Your task to perform on an android device: turn off wifi Image 0: 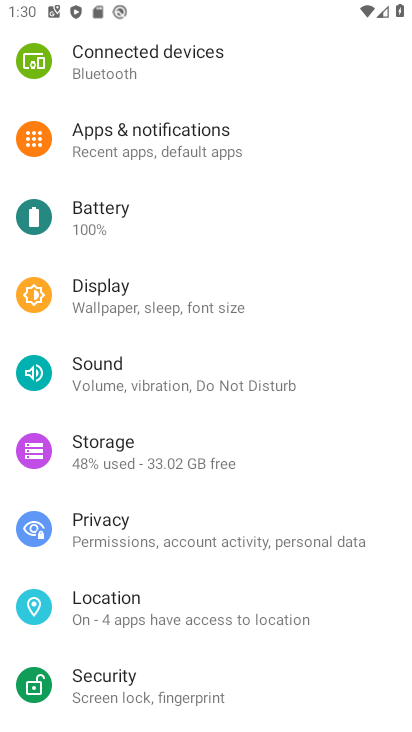
Step 0: press home button
Your task to perform on an android device: turn off wifi Image 1: 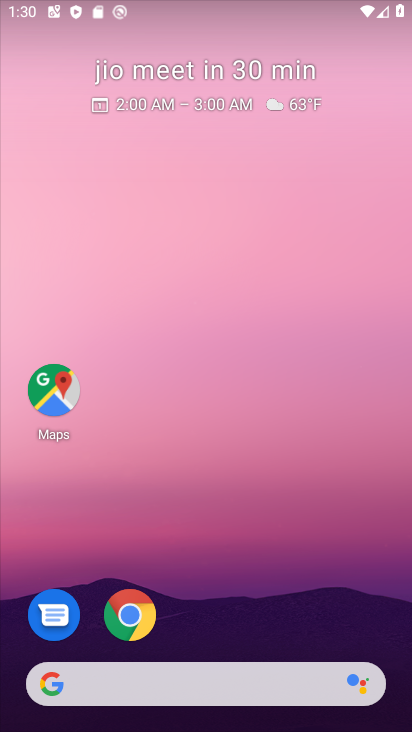
Step 1: drag from (192, 579) to (261, 88)
Your task to perform on an android device: turn off wifi Image 2: 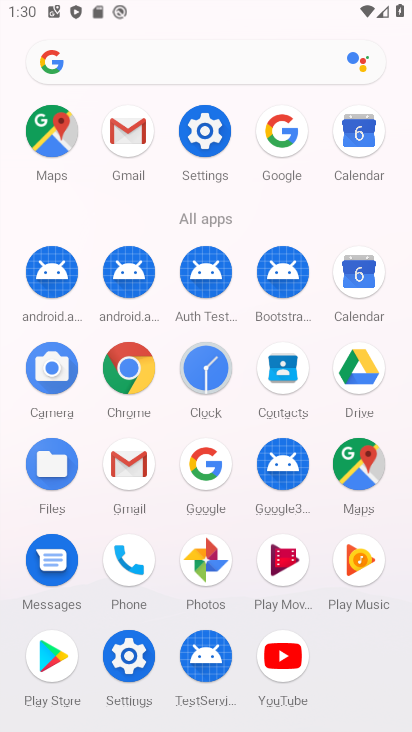
Step 2: drag from (159, 572) to (205, 366)
Your task to perform on an android device: turn off wifi Image 3: 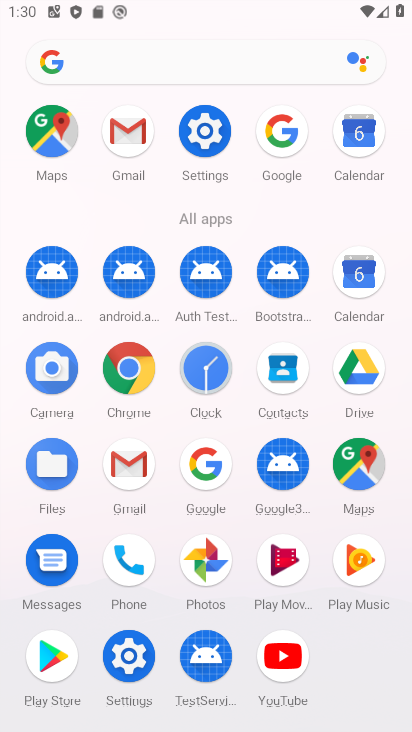
Step 3: click (133, 653)
Your task to perform on an android device: turn off wifi Image 4: 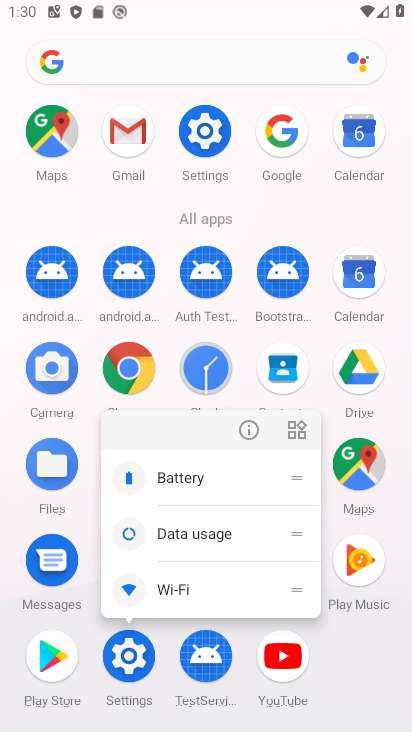
Step 4: click (125, 653)
Your task to perform on an android device: turn off wifi Image 5: 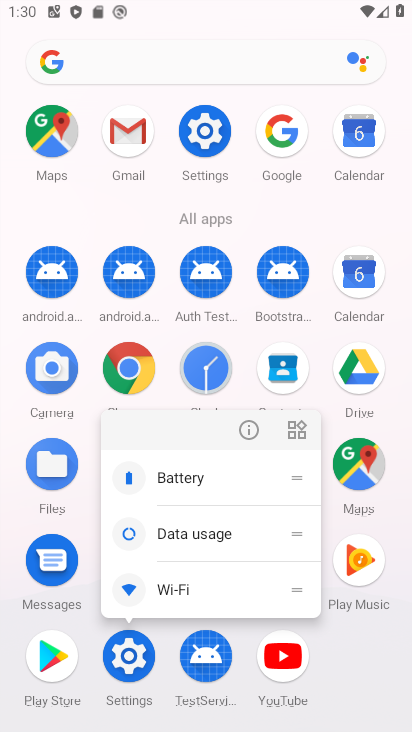
Step 5: click (120, 664)
Your task to perform on an android device: turn off wifi Image 6: 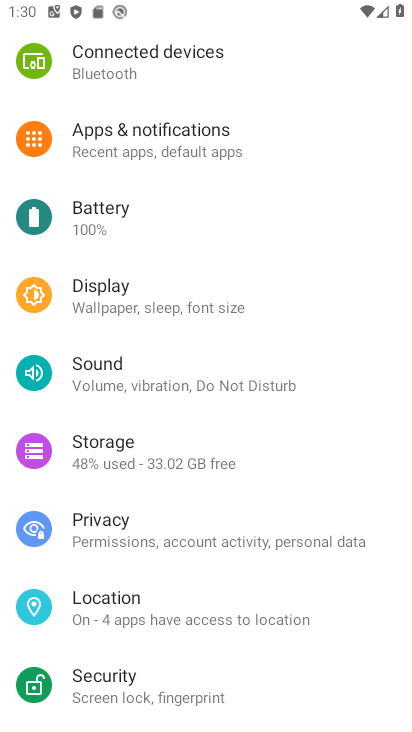
Step 6: drag from (250, 145) to (234, 547)
Your task to perform on an android device: turn off wifi Image 7: 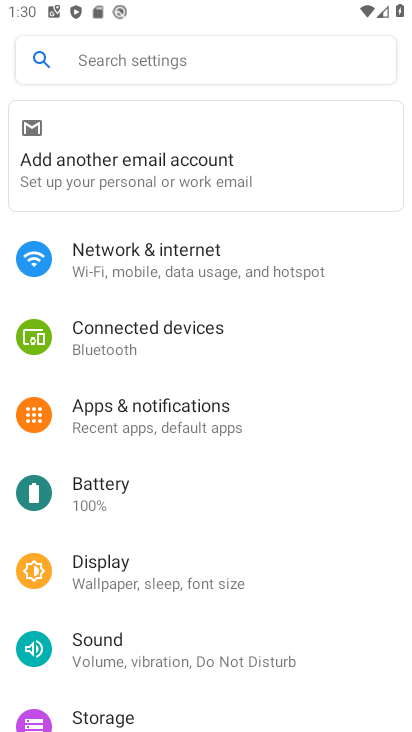
Step 7: click (266, 267)
Your task to perform on an android device: turn off wifi Image 8: 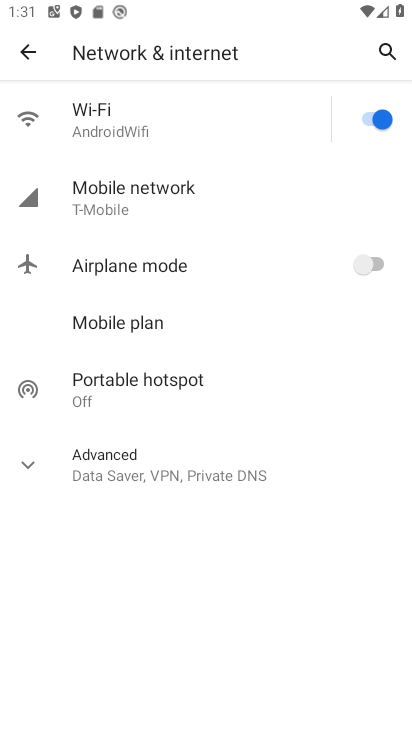
Step 8: click (377, 114)
Your task to perform on an android device: turn off wifi Image 9: 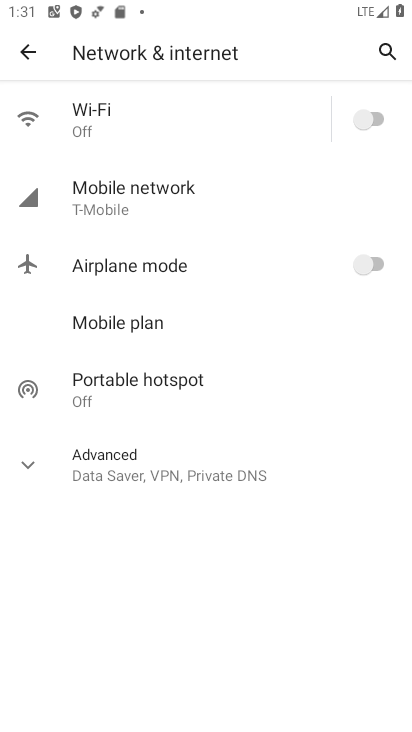
Step 9: task complete